Your task to perform on an android device: empty trash in the gmail app Image 0: 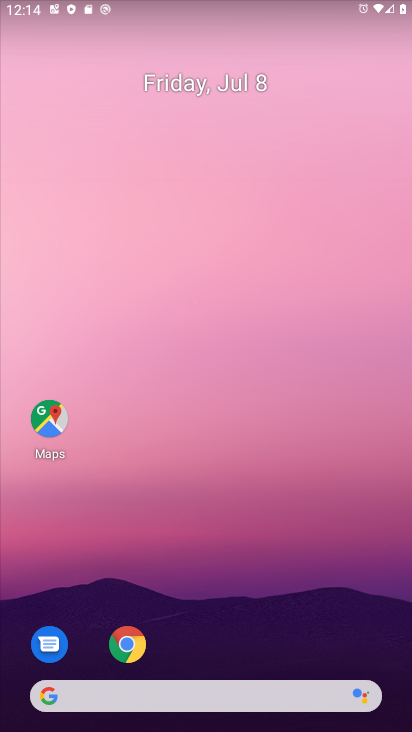
Step 0: drag from (218, 641) to (272, 57)
Your task to perform on an android device: empty trash in the gmail app Image 1: 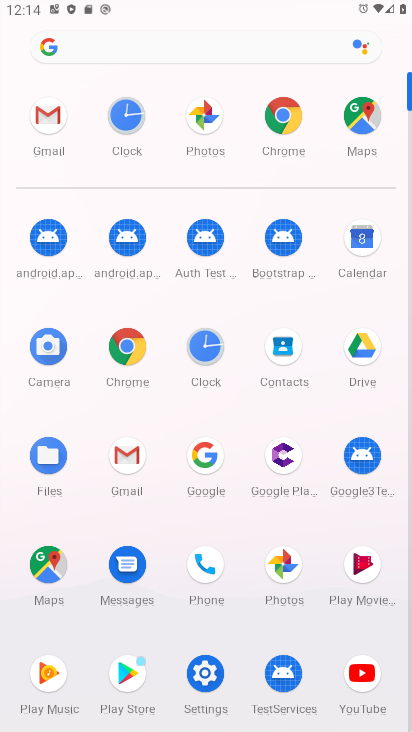
Step 1: click (130, 470)
Your task to perform on an android device: empty trash in the gmail app Image 2: 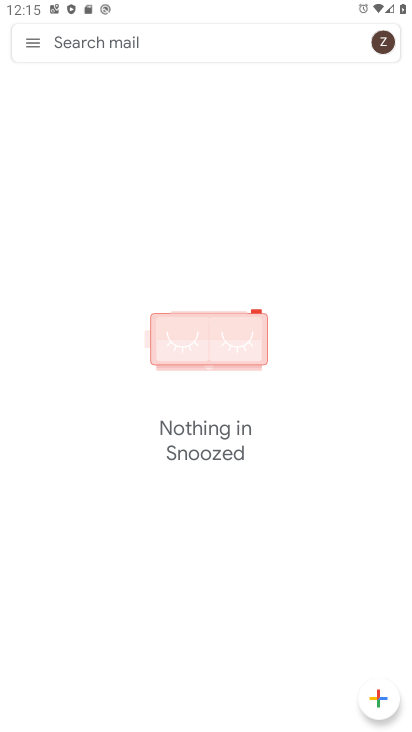
Step 2: click (24, 39)
Your task to perform on an android device: empty trash in the gmail app Image 3: 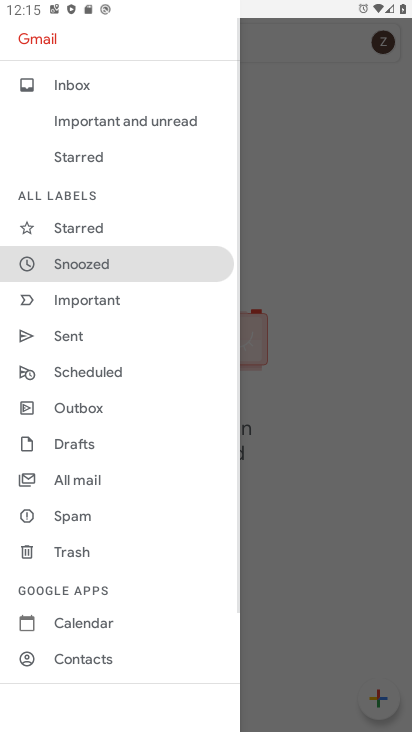
Step 3: click (94, 556)
Your task to perform on an android device: empty trash in the gmail app Image 4: 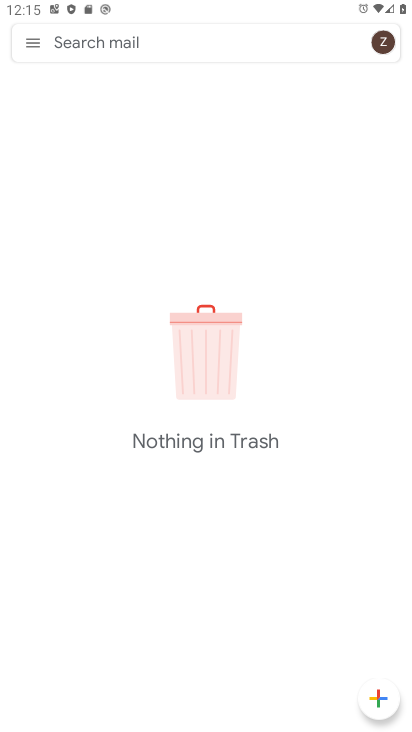
Step 4: task complete